Your task to perform on an android device: Search for "usb-c" on newegg.com, select the first entry, add it to the cart, then select checkout. Image 0: 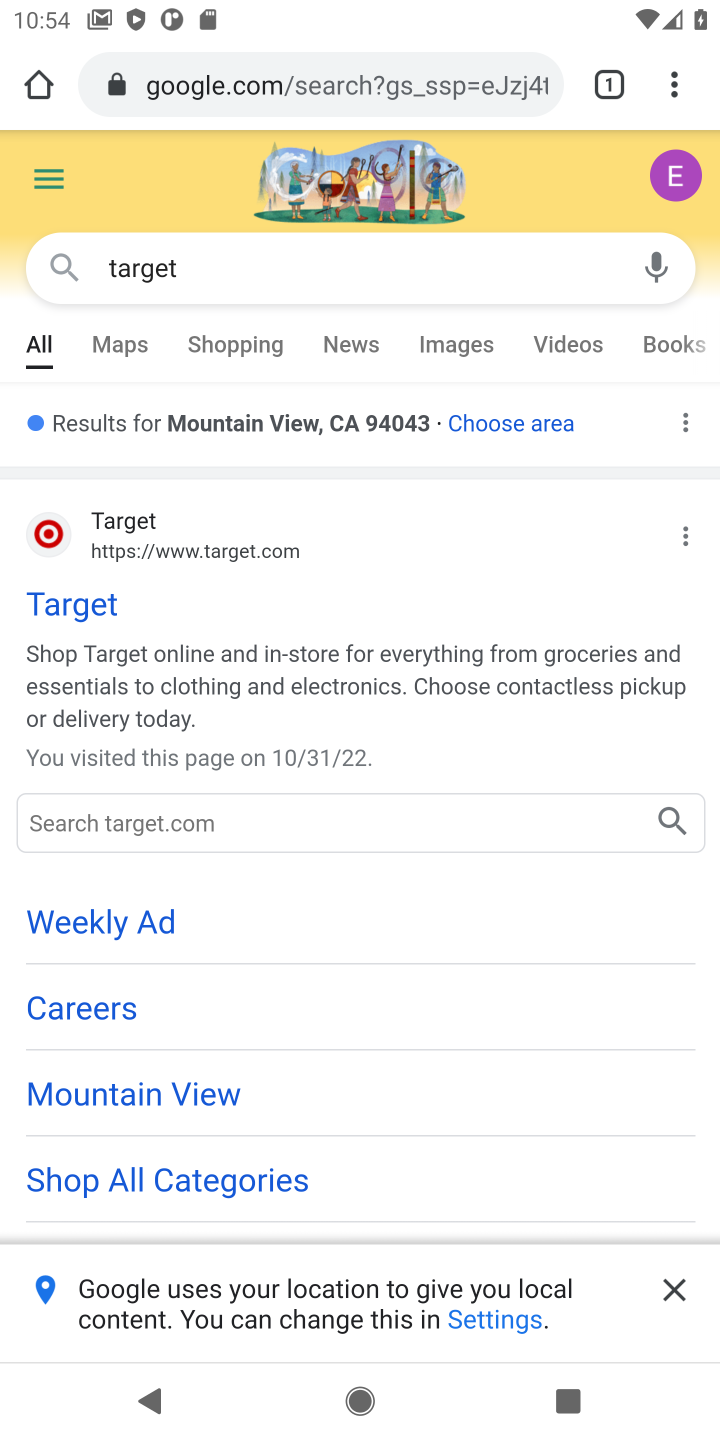
Step 0: click (323, 100)
Your task to perform on an android device: Search for "usb-c" on newegg.com, select the first entry, add it to the cart, then select checkout. Image 1: 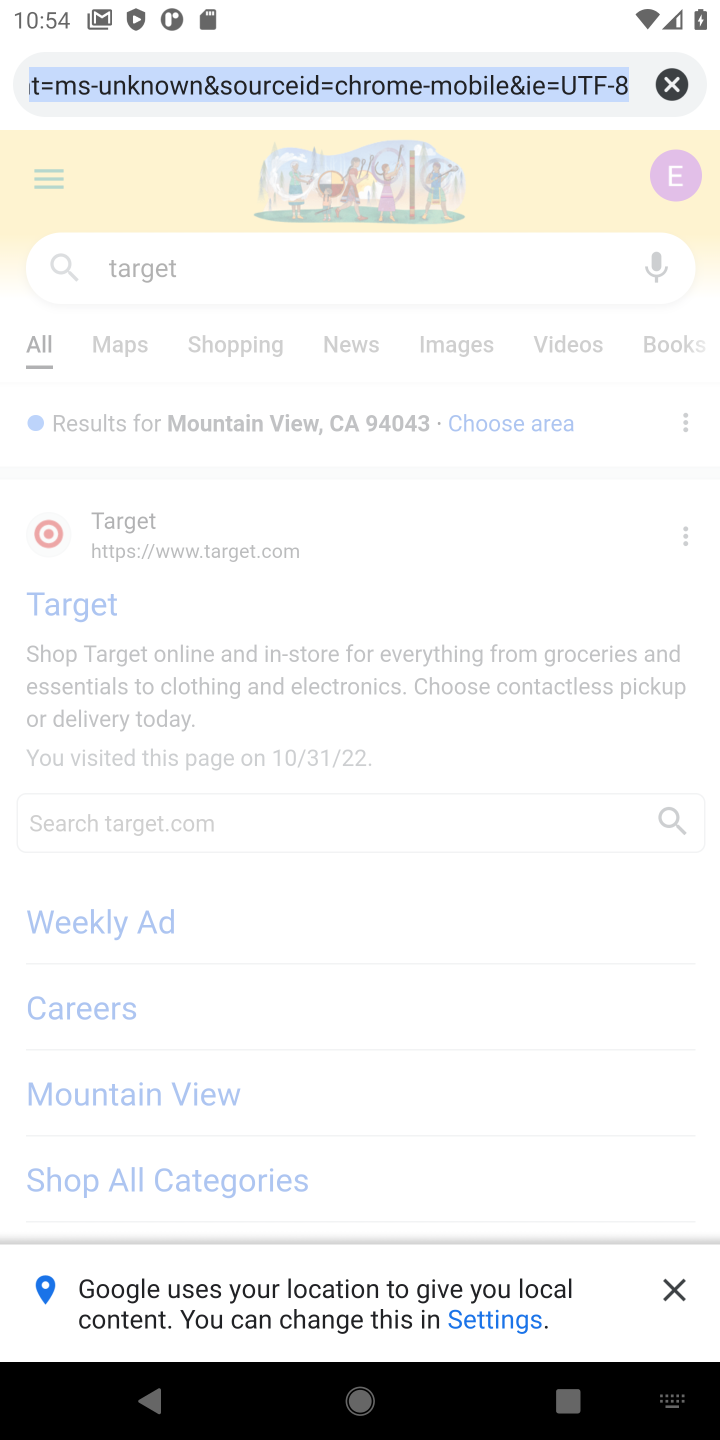
Step 1: type "newegg"
Your task to perform on an android device: Search for "usb-c" on newegg.com, select the first entry, add it to the cart, then select checkout. Image 2: 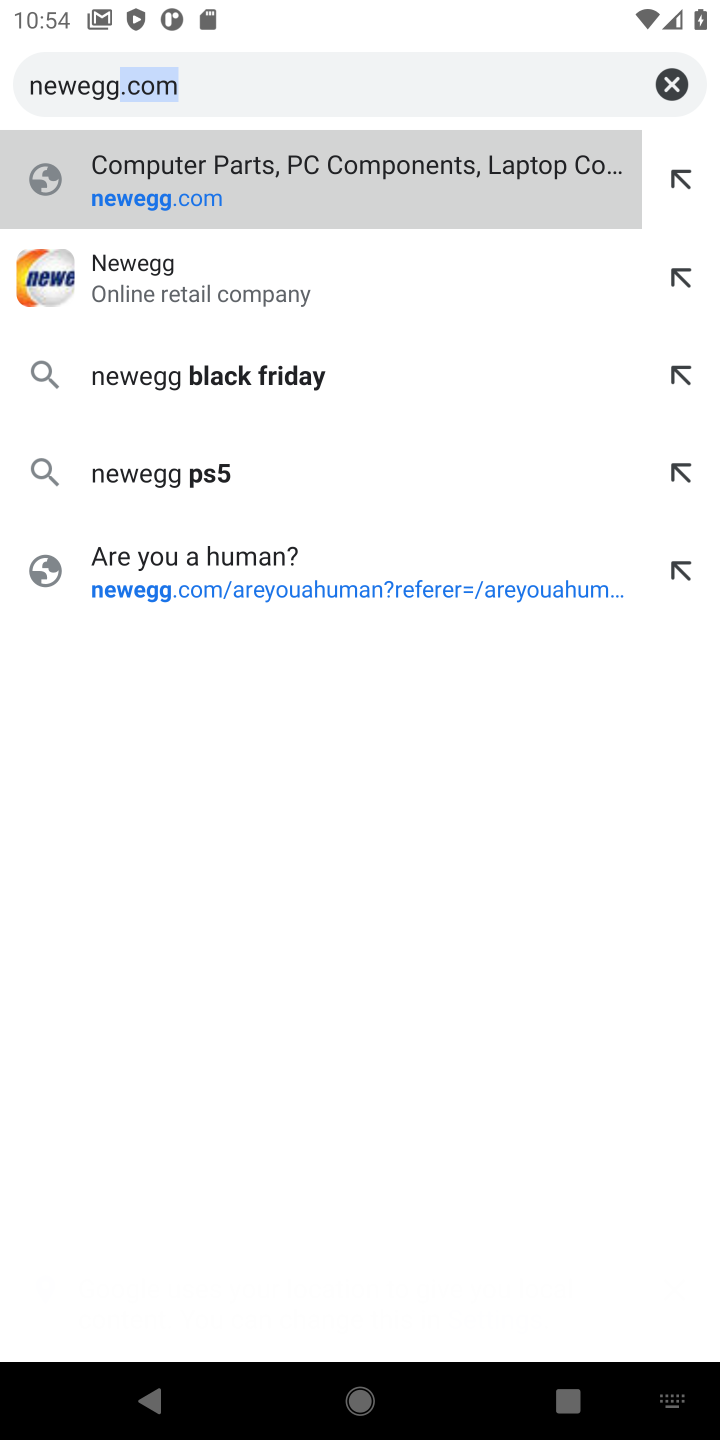
Step 2: click (335, 288)
Your task to perform on an android device: Search for "usb-c" on newegg.com, select the first entry, add it to the cart, then select checkout. Image 3: 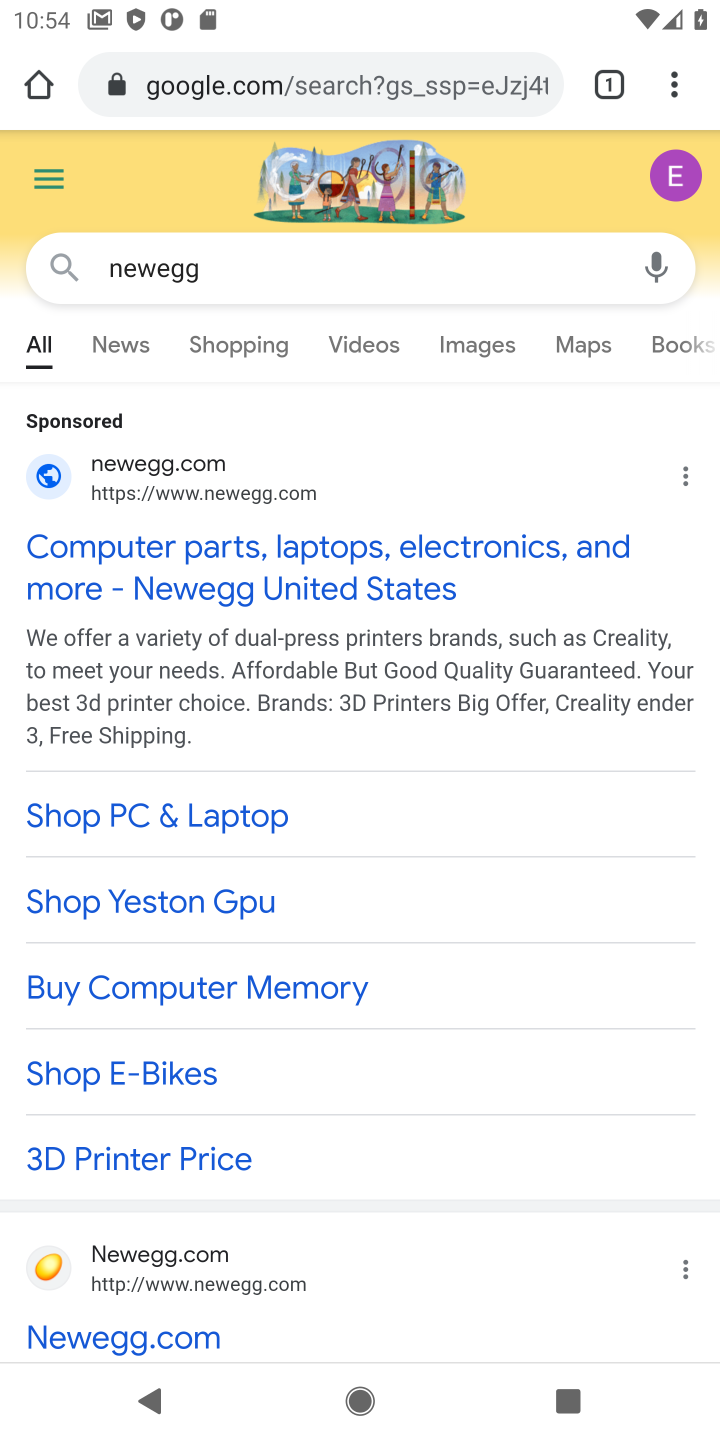
Step 3: click (75, 1337)
Your task to perform on an android device: Search for "usb-c" on newegg.com, select the first entry, add it to the cart, then select checkout. Image 4: 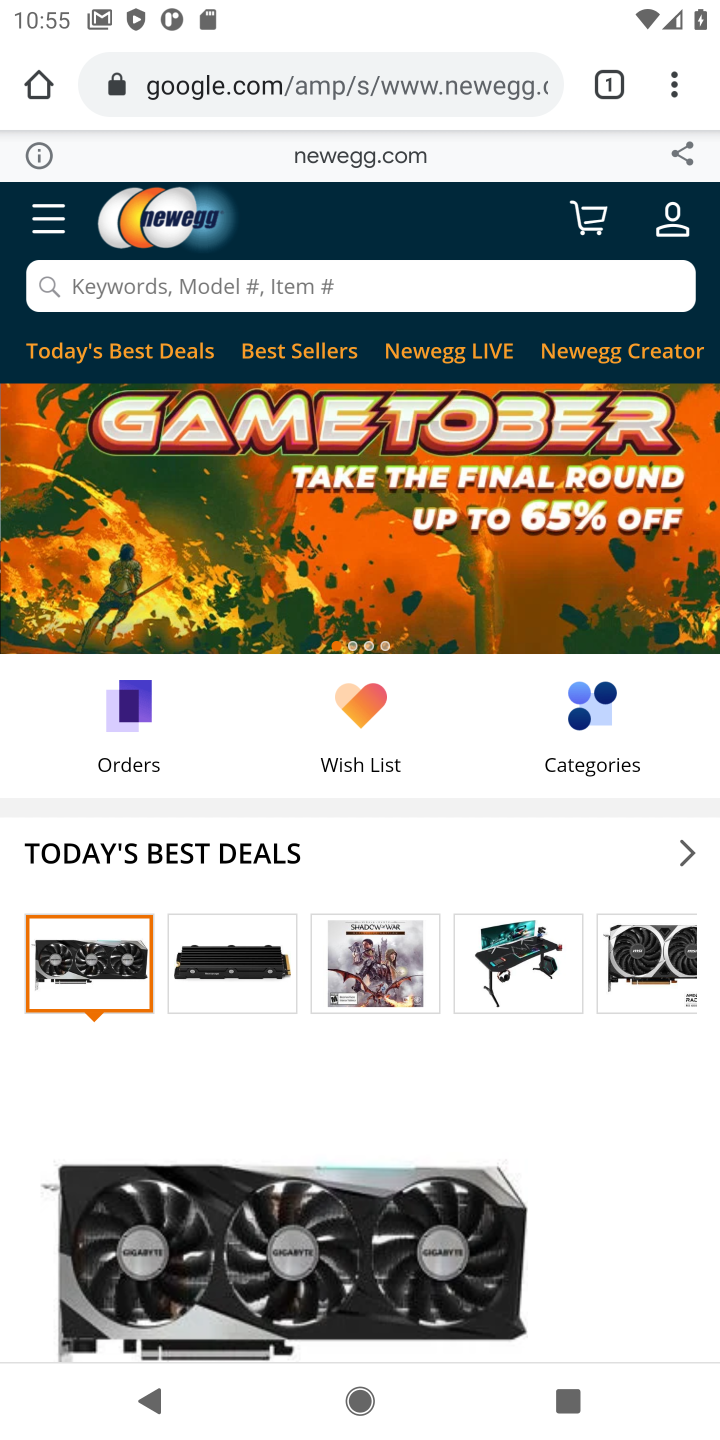
Step 4: click (379, 289)
Your task to perform on an android device: Search for "usb-c" on newegg.com, select the first entry, add it to the cart, then select checkout. Image 5: 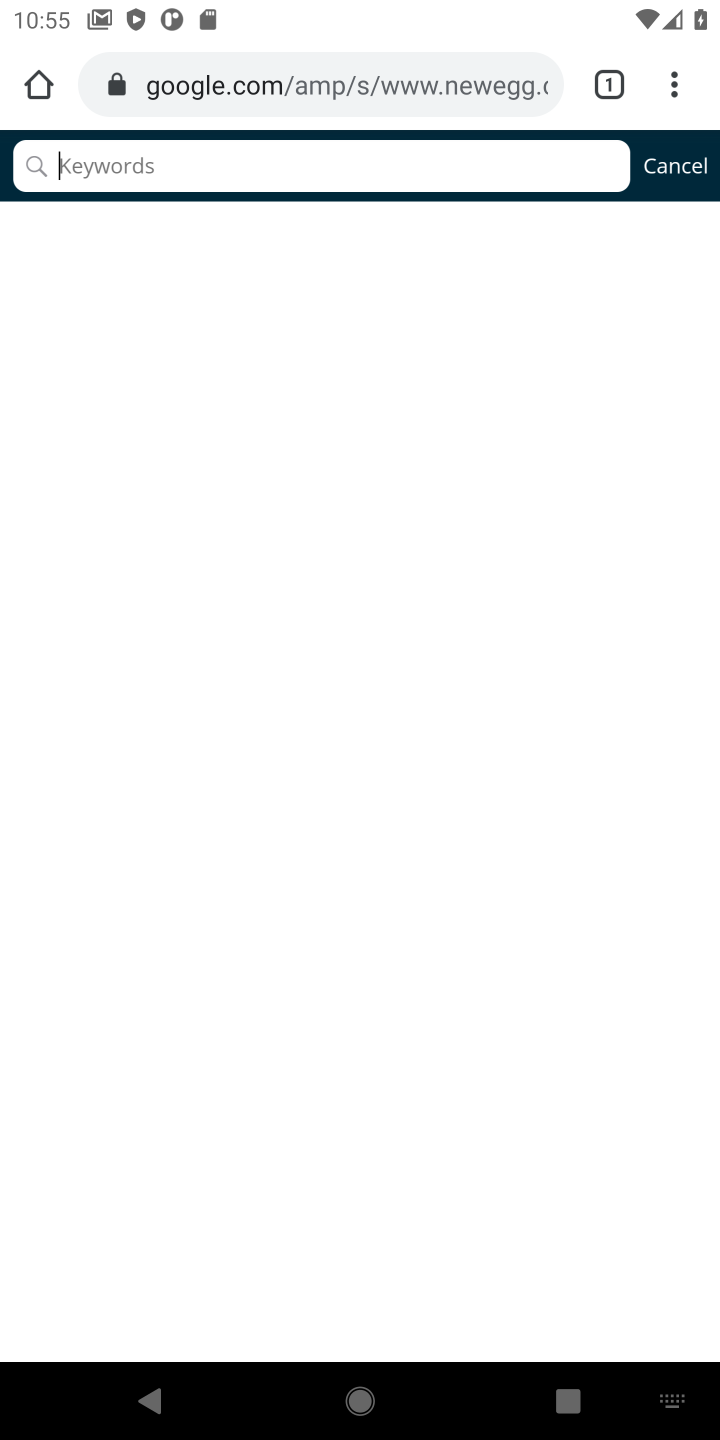
Step 5: type "usb c"
Your task to perform on an android device: Search for "usb-c" on newegg.com, select the first entry, add it to the cart, then select checkout. Image 6: 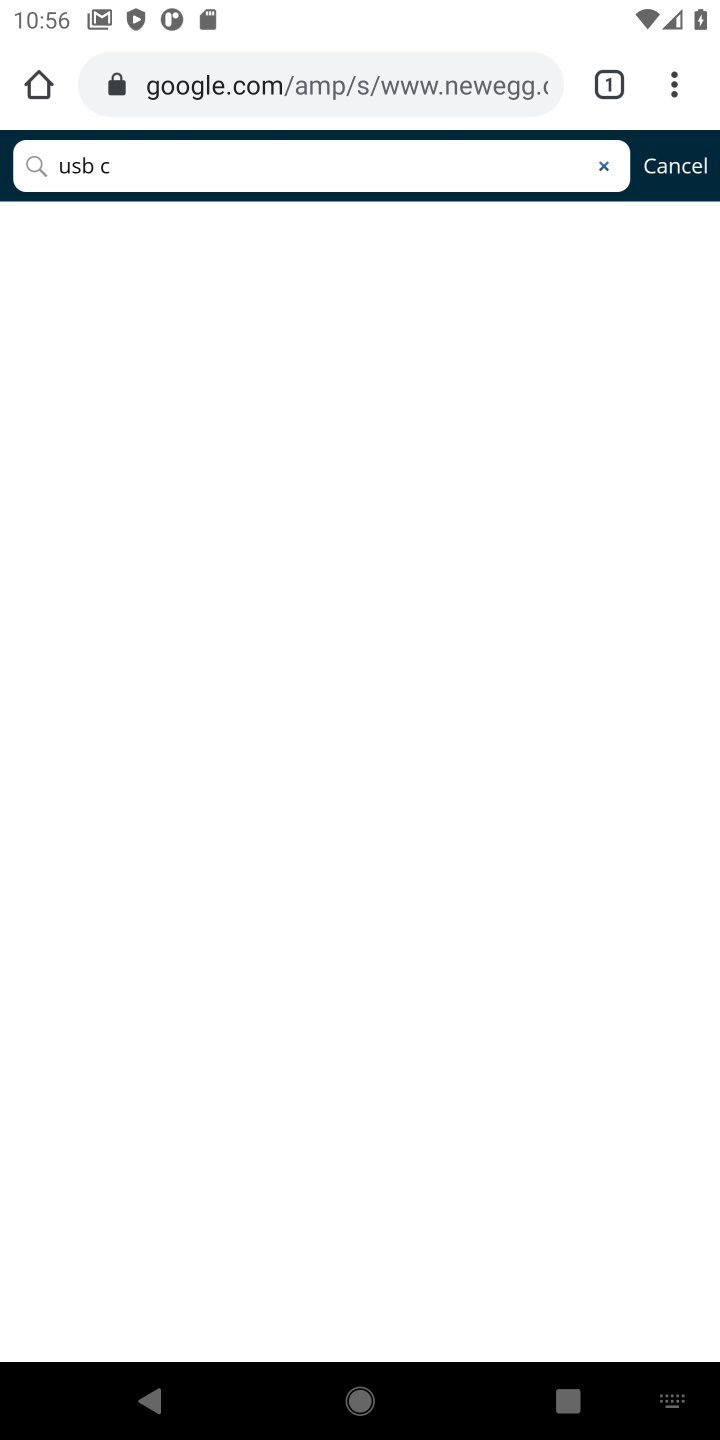
Step 6: click (599, 164)
Your task to perform on an android device: Search for "usb-c" on newegg.com, select the first entry, add it to the cart, then select checkout. Image 7: 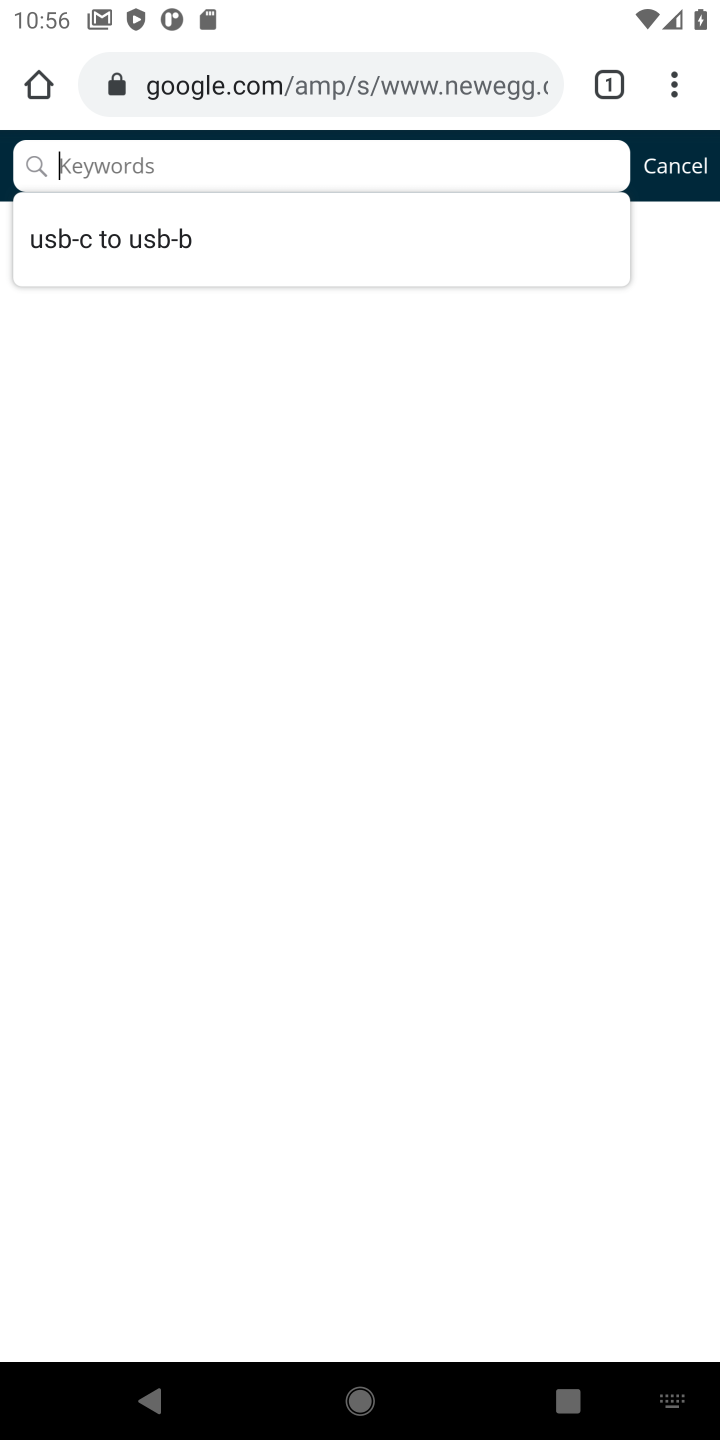
Step 7: type ""usb-c"
Your task to perform on an android device: Search for "usb-c" on newegg.com, select the first entry, add it to the cart, then select checkout. Image 8: 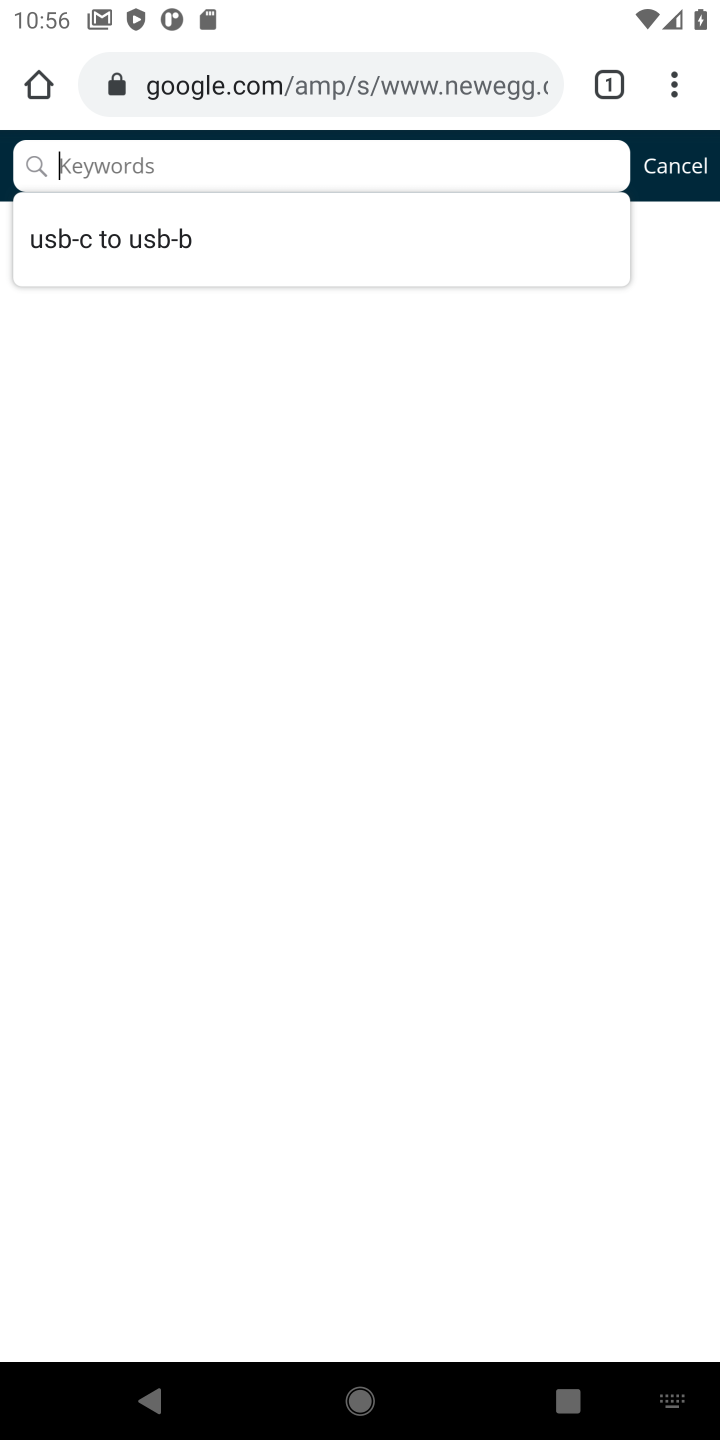
Step 8: click (604, 165)
Your task to perform on an android device: Search for "usb-c" on newegg.com, select the first entry, add it to the cart, then select checkout. Image 9: 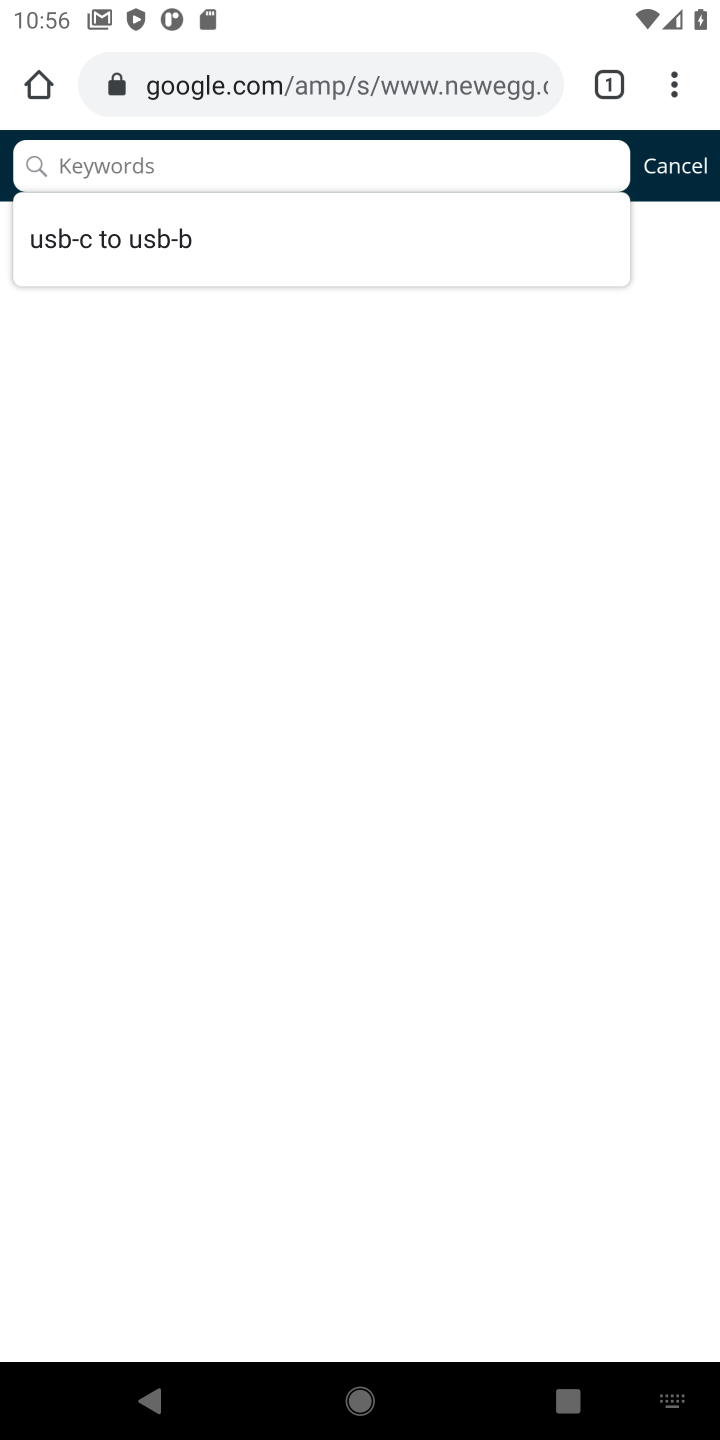
Step 9: click (603, 166)
Your task to perform on an android device: Search for "usb-c" on newegg.com, select the first entry, add it to the cart, then select checkout. Image 10: 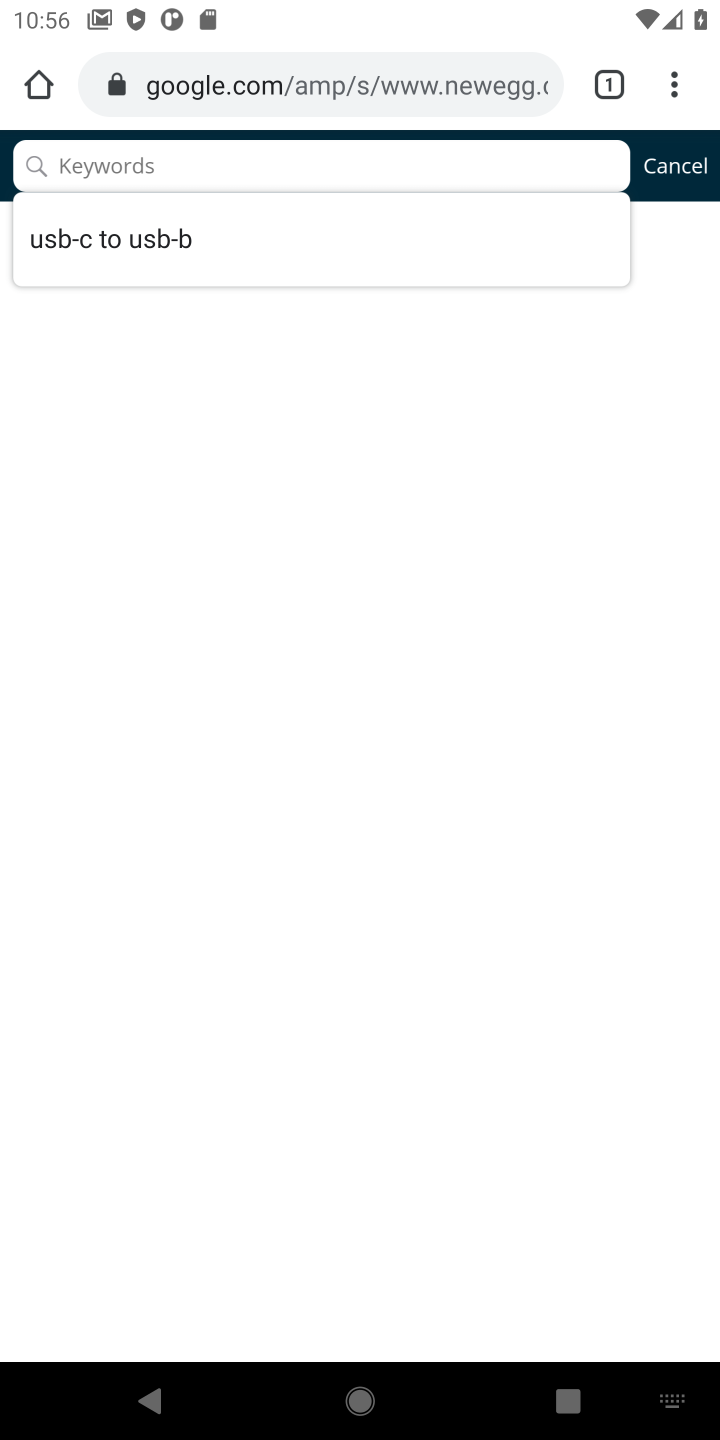
Step 10: click (603, 170)
Your task to perform on an android device: Search for "usb-c" on newegg.com, select the first entry, add it to the cart, then select checkout. Image 11: 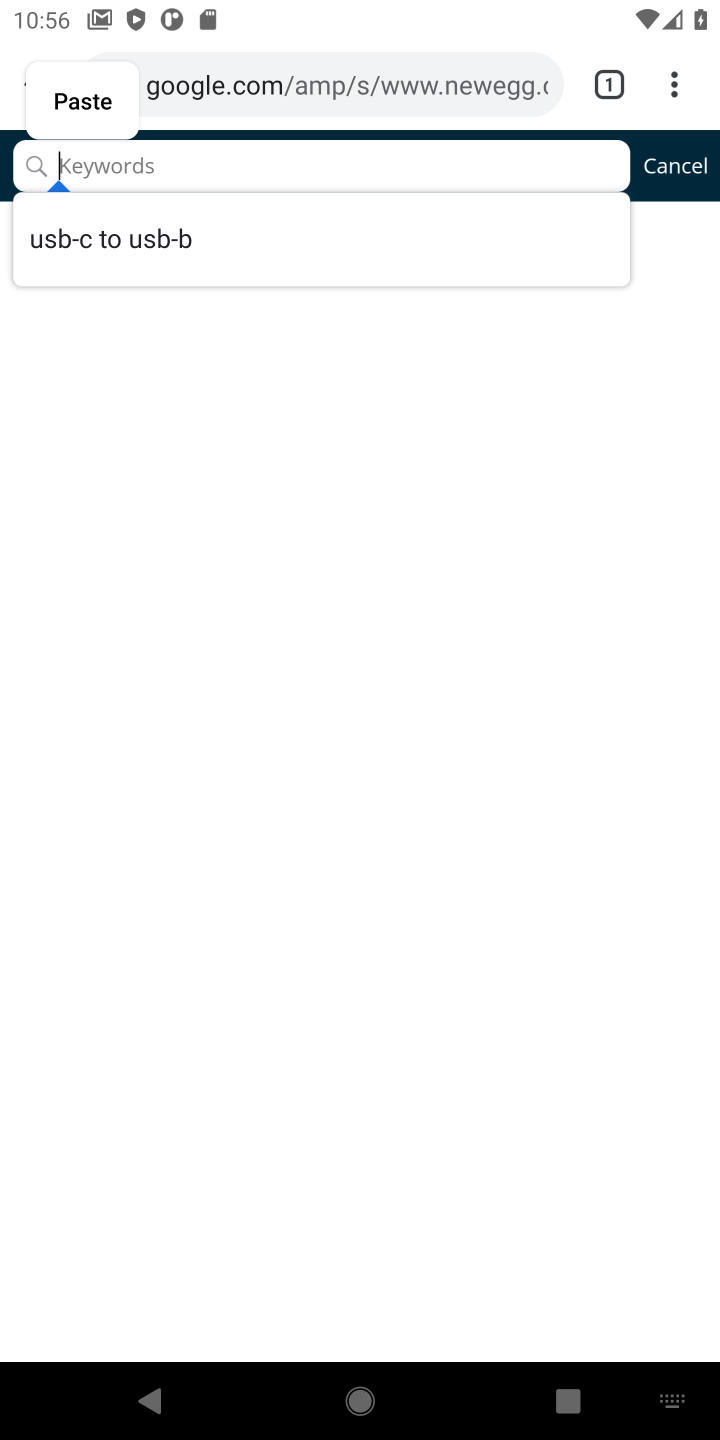
Step 11: type "usb-c"
Your task to perform on an android device: Search for "usb-c" on newegg.com, select the first entry, add it to the cart, then select checkout. Image 12: 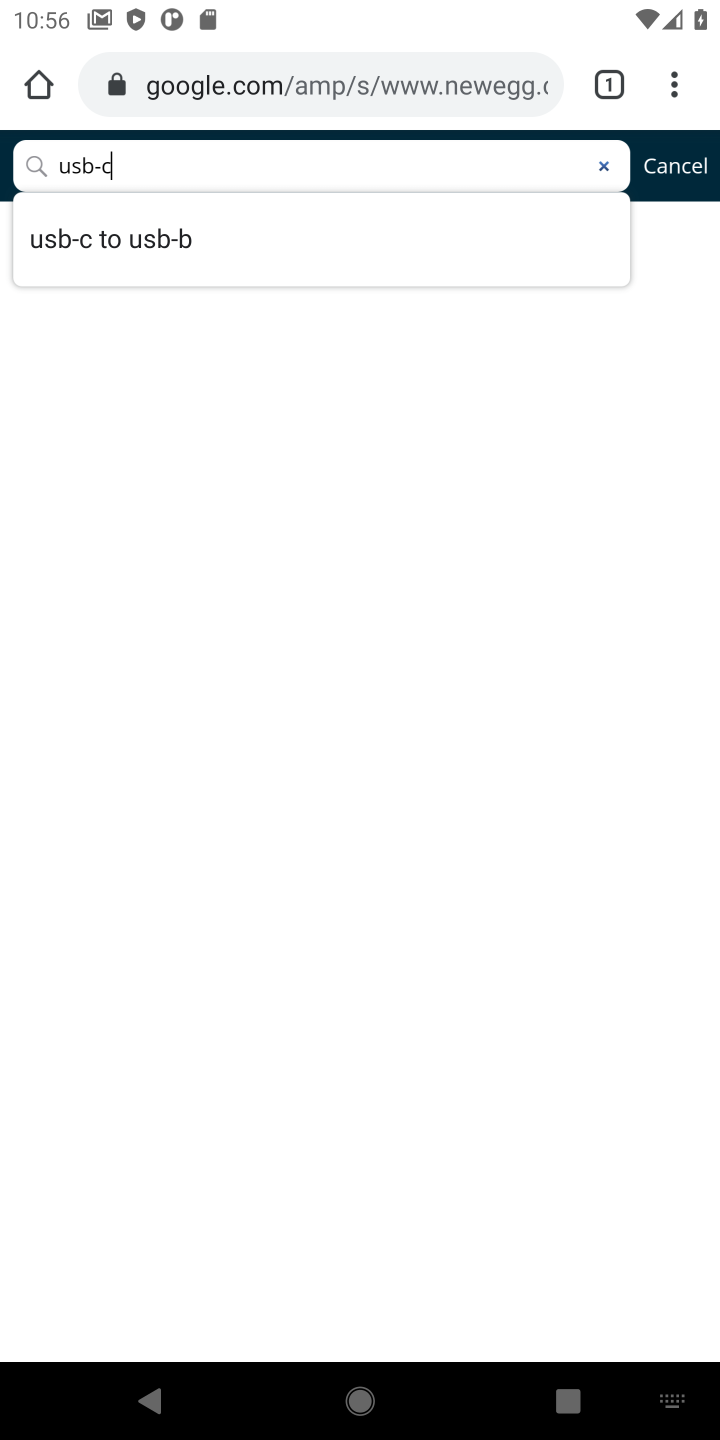
Step 12: type ""
Your task to perform on an android device: Search for "usb-c" on newegg.com, select the first entry, add it to the cart, then select checkout. Image 13: 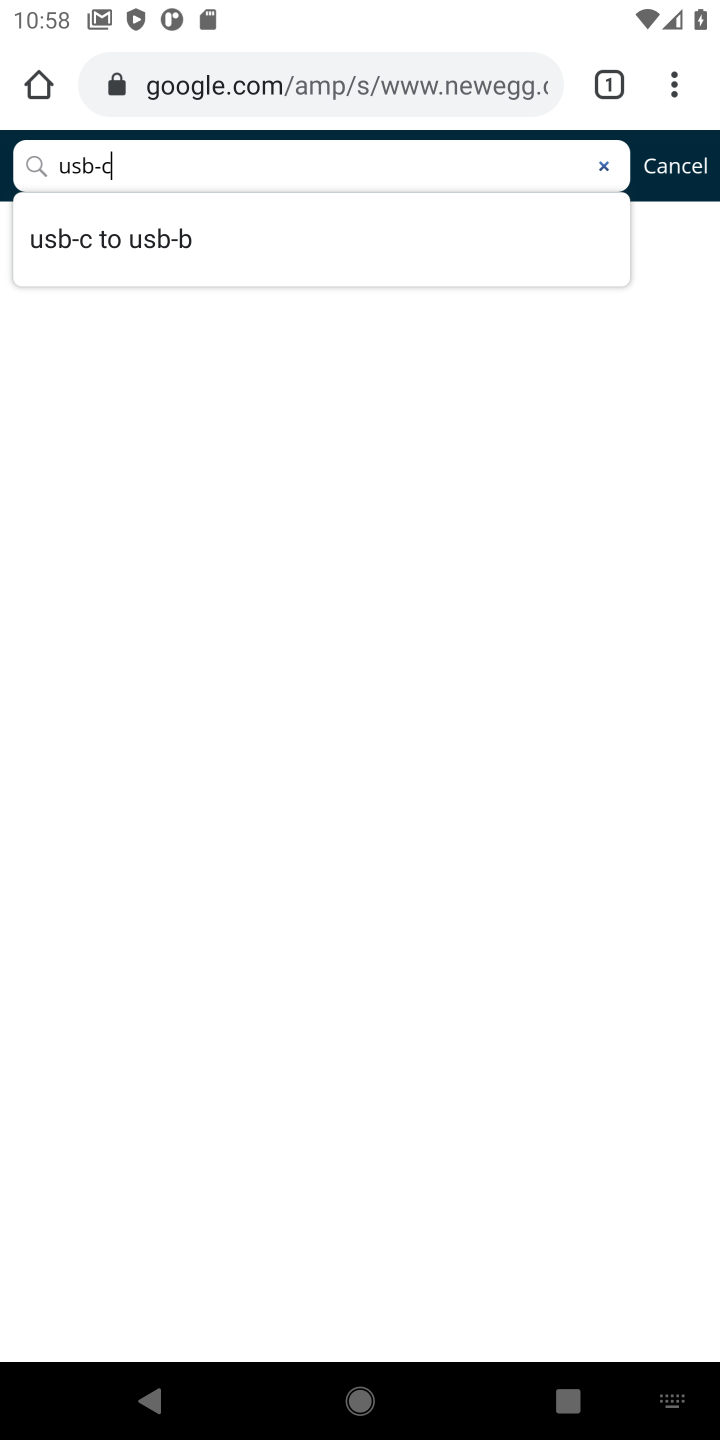
Step 13: task complete